Your task to perform on an android device: turn smart compose on in the gmail app Image 0: 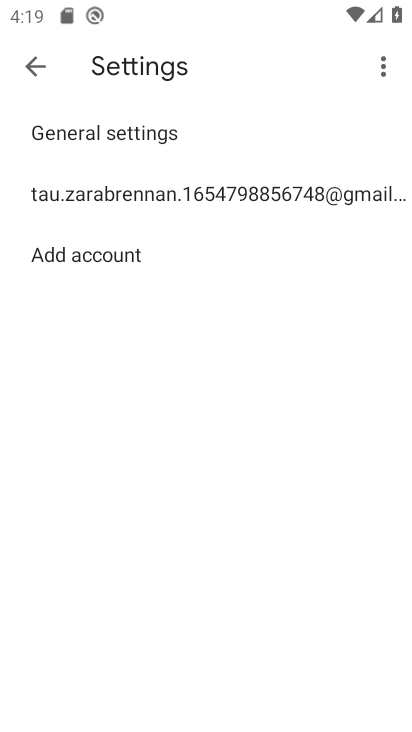
Step 0: click (311, 191)
Your task to perform on an android device: turn smart compose on in the gmail app Image 1: 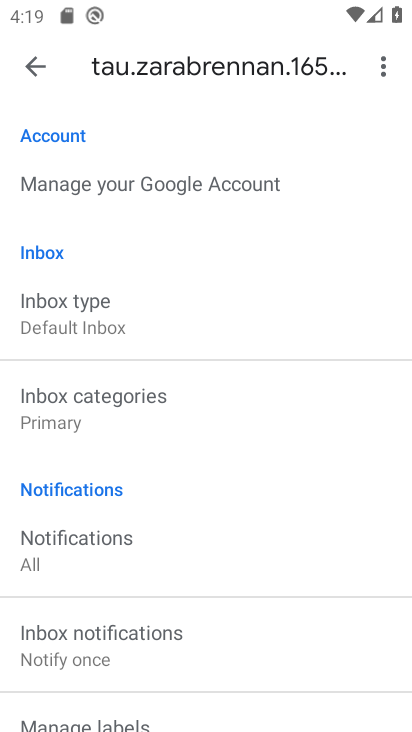
Step 1: task complete